Your task to perform on an android device: change the upload size in google photos Image 0: 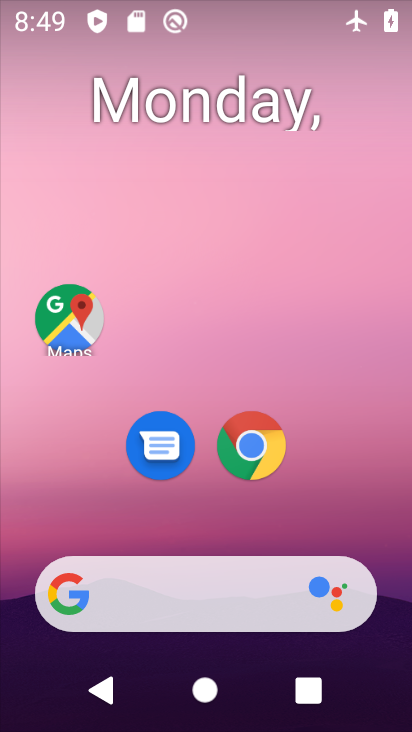
Step 0: drag from (372, 518) to (370, 295)
Your task to perform on an android device: change the upload size in google photos Image 1: 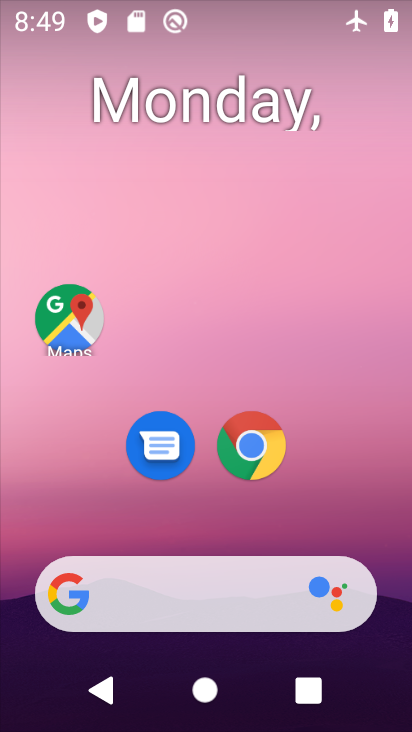
Step 1: drag from (383, 521) to (388, 147)
Your task to perform on an android device: change the upload size in google photos Image 2: 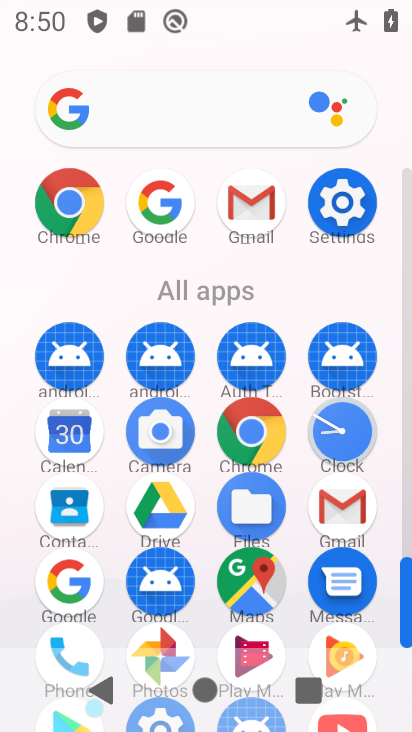
Step 2: drag from (382, 526) to (387, 318)
Your task to perform on an android device: change the upload size in google photos Image 3: 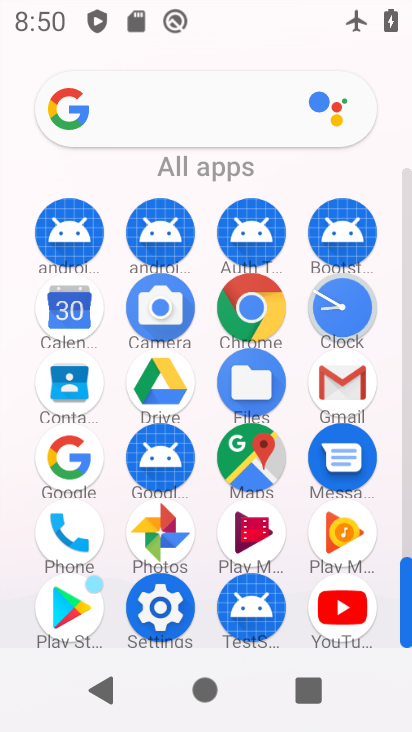
Step 3: click (163, 540)
Your task to perform on an android device: change the upload size in google photos Image 4: 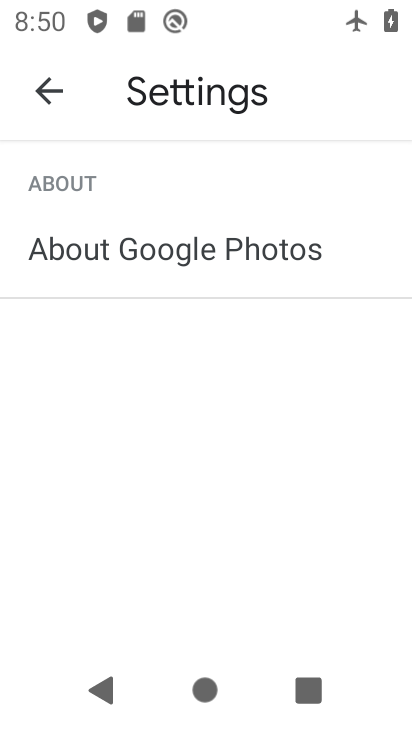
Step 4: click (39, 98)
Your task to perform on an android device: change the upload size in google photos Image 5: 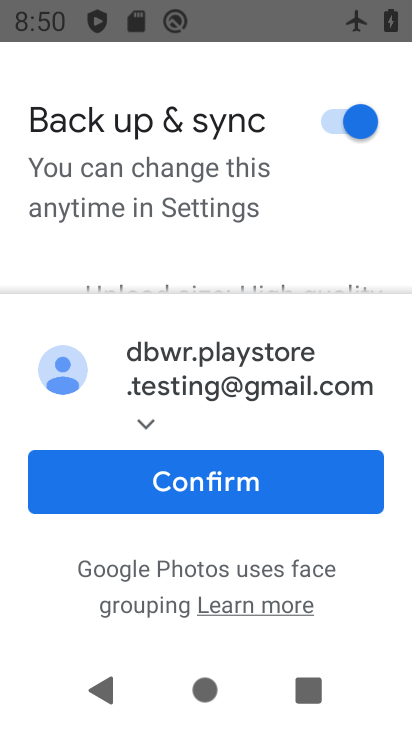
Step 5: click (308, 489)
Your task to perform on an android device: change the upload size in google photos Image 6: 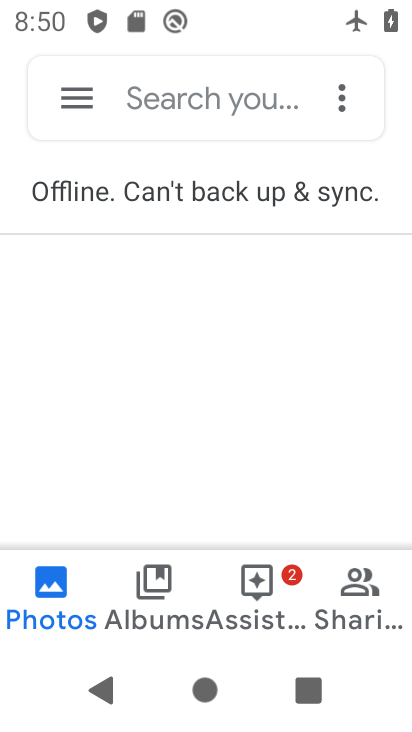
Step 6: click (80, 112)
Your task to perform on an android device: change the upload size in google photos Image 7: 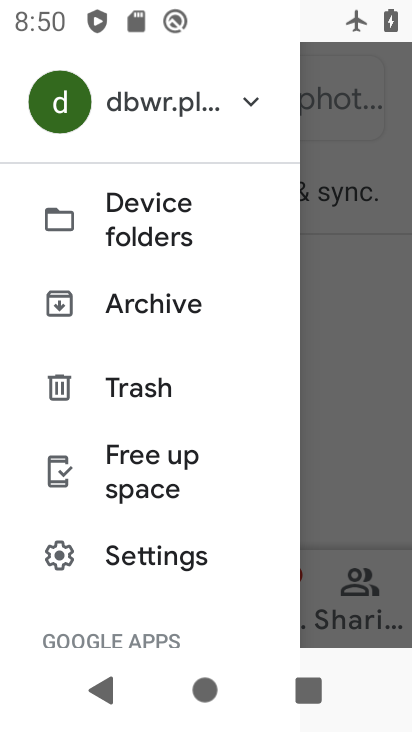
Step 7: drag from (229, 481) to (250, 285)
Your task to perform on an android device: change the upload size in google photos Image 8: 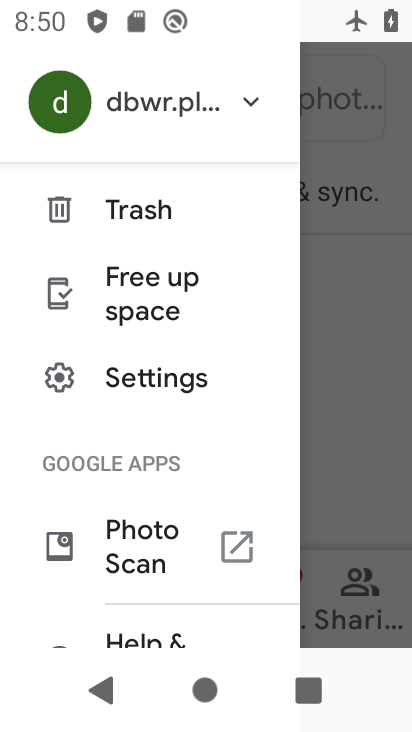
Step 8: drag from (233, 445) to (237, 287)
Your task to perform on an android device: change the upload size in google photos Image 9: 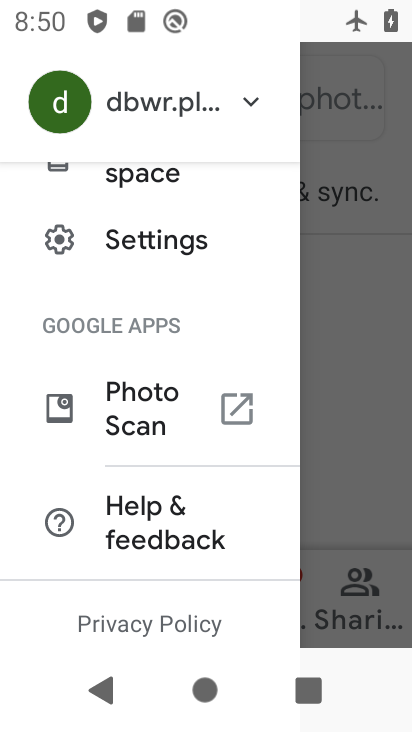
Step 9: click (191, 255)
Your task to perform on an android device: change the upload size in google photos Image 10: 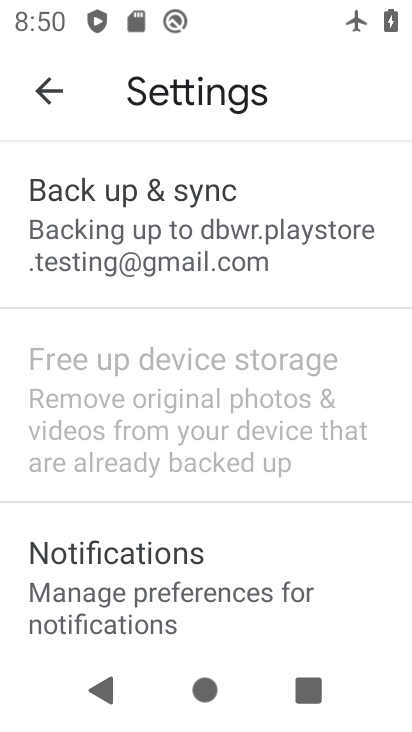
Step 10: click (191, 255)
Your task to perform on an android device: change the upload size in google photos Image 11: 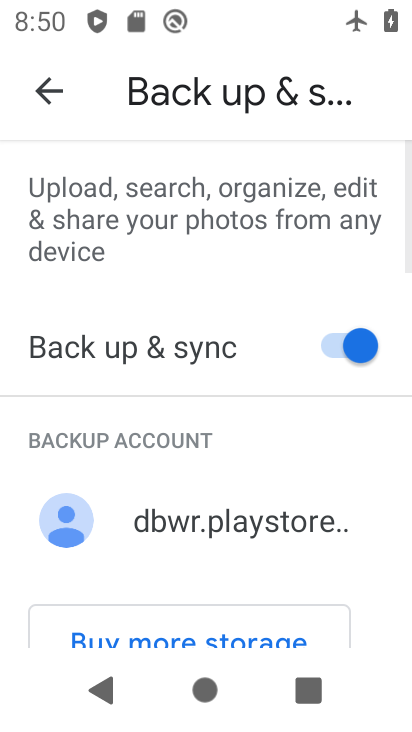
Step 11: drag from (267, 449) to (264, 352)
Your task to perform on an android device: change the upload size in google photos Image 12: 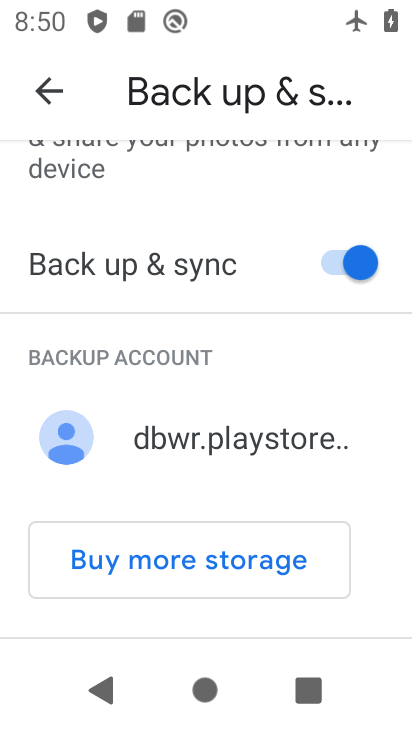
Step 12: drag from (262, 434) to (275, 319)
Your task to perform on an android device: change the upload size in google photos Image 13: 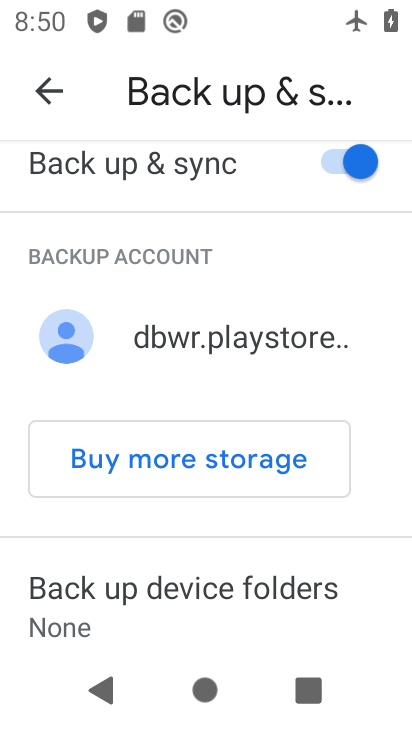
Step 13: drag from (269, 524) to (276, 397)
Your task to perform on an android device: change the upload size in google photos Image 14: 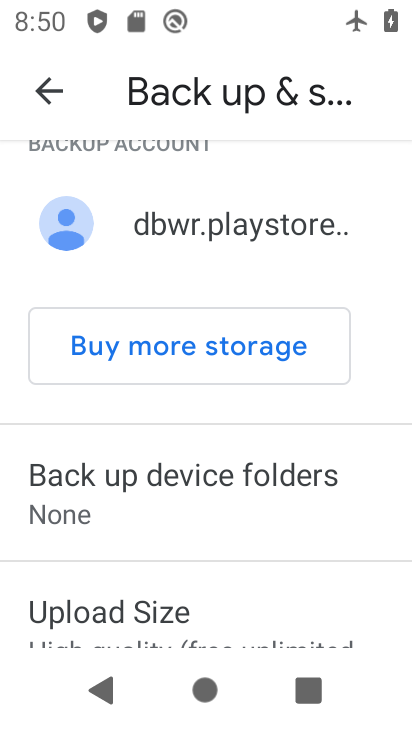
Step 14: drag from (299, 560) to (316, 437)
Your task to perform on an android device: change the upload size in google photos Image 15: 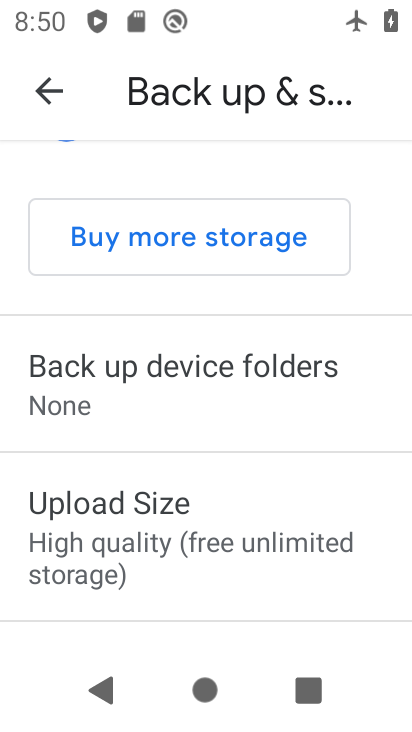
Step 15: drag from (314, 586) to (323, 476)
Your task to perform on an android device: change the upload size in google photos Image 16: 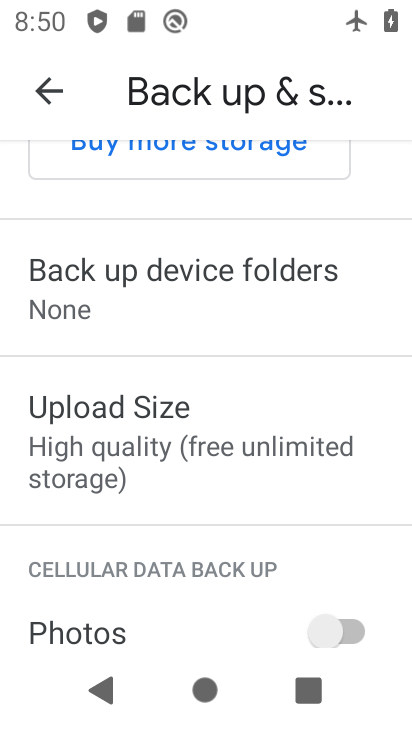
Step 16: drag from (269, 613) to (292, 506)
Your task to perform on an android device: change the upload size in google photos Image 17: 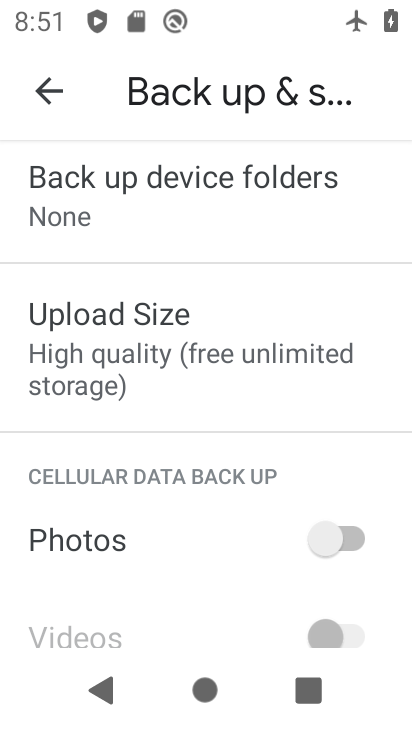
Step 17: drag from (367, 618) to (375, 493)
Your task to perform on an android device: change the upload size in google photos Image 18: 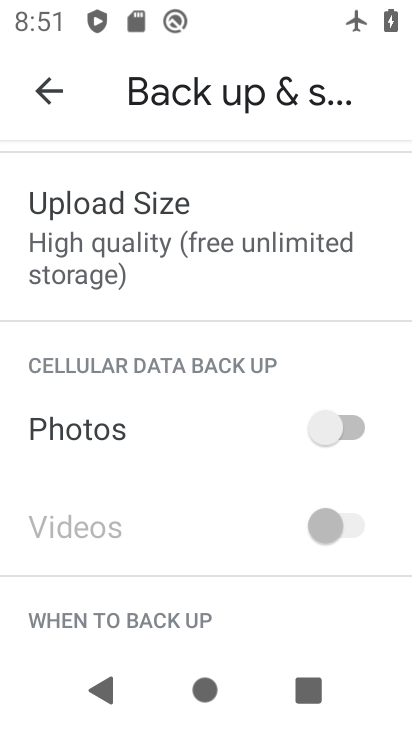
Step 18: click (228, 240)
Your task to perform on an android device: change the upload size in google photos Image 19: 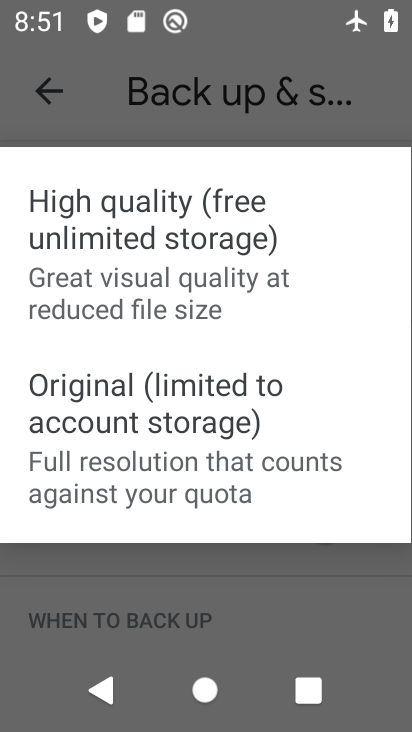
Step 19: click (242, 436)
Your task to perform on an android device: change the upload size in google photos Image 20: 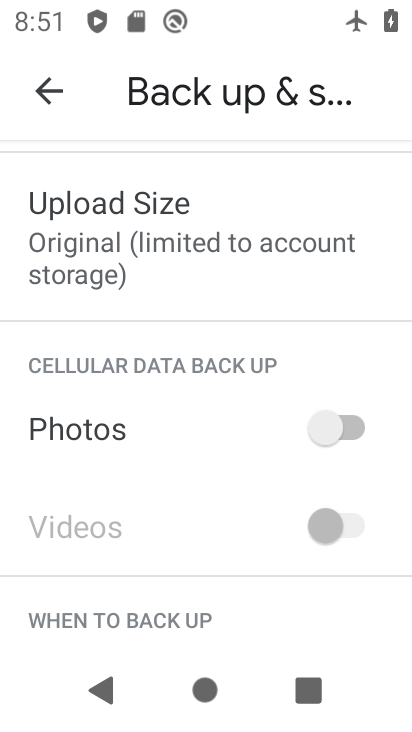
Step 20: task complete